Your task to perform on an android device: Search for coffee table on Crate & Barrel Image 0: 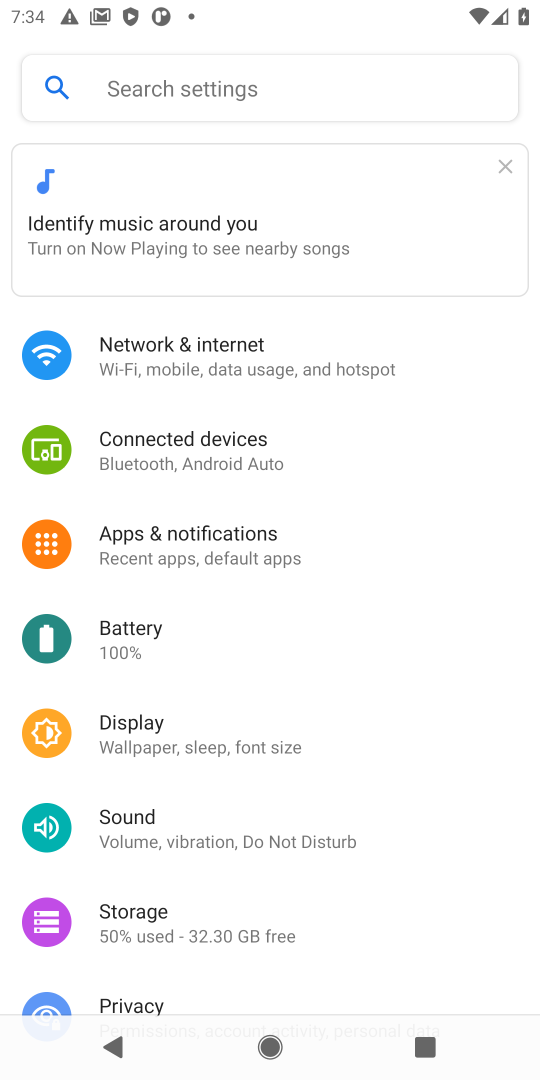
Step 0: press home button
Your task to perform on an android device: Search for coffee table on Crate & Barrel Image 1: 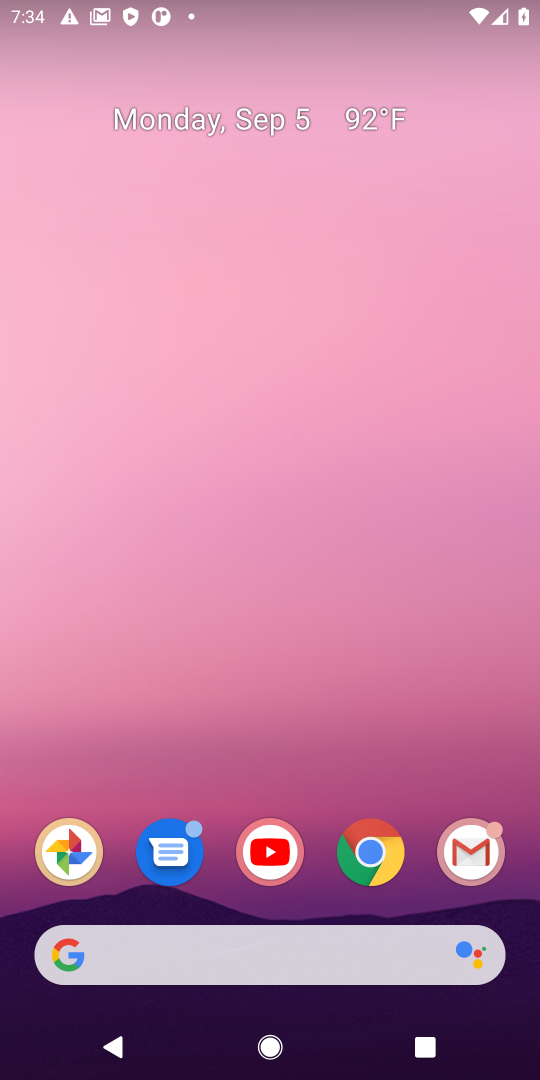
Step 1: click (364, 836)
Your task to perform on an android device: Search for coffee table on Crate & Barrel Image 2: 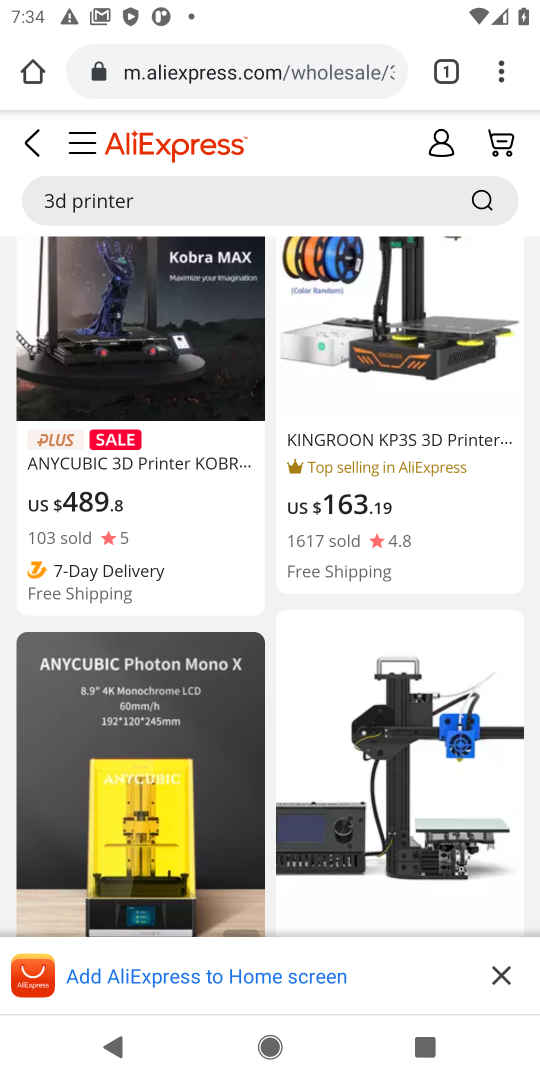
Step 2: click (339, 74)
Your task to perform on an android device: Search for coffee table on Crate & Barrel Image 3: 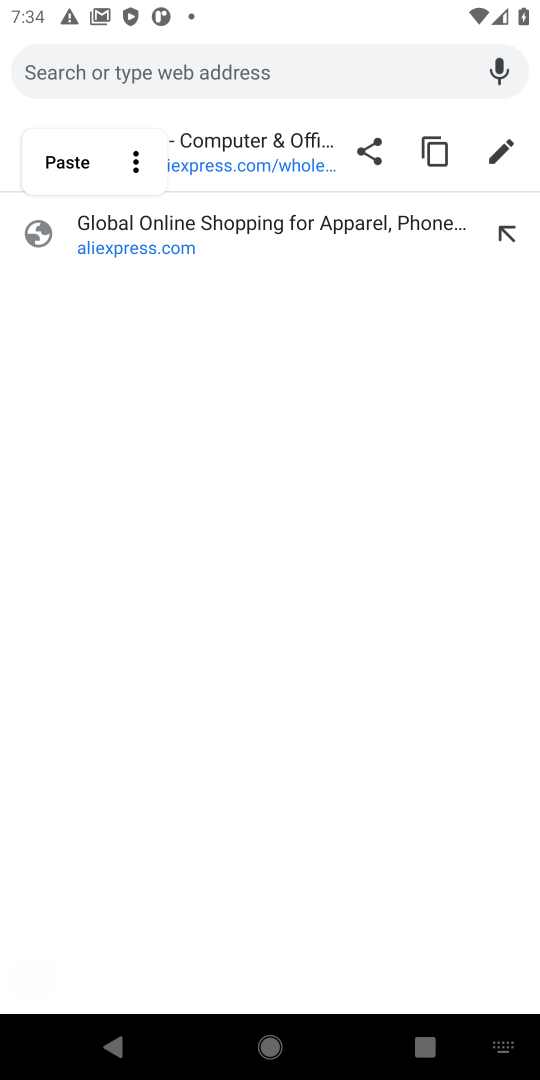
Step 3: type "crate & barrel"
Your task to perform on an android device: Search for coffee table on Crate & Barrel Image 4: 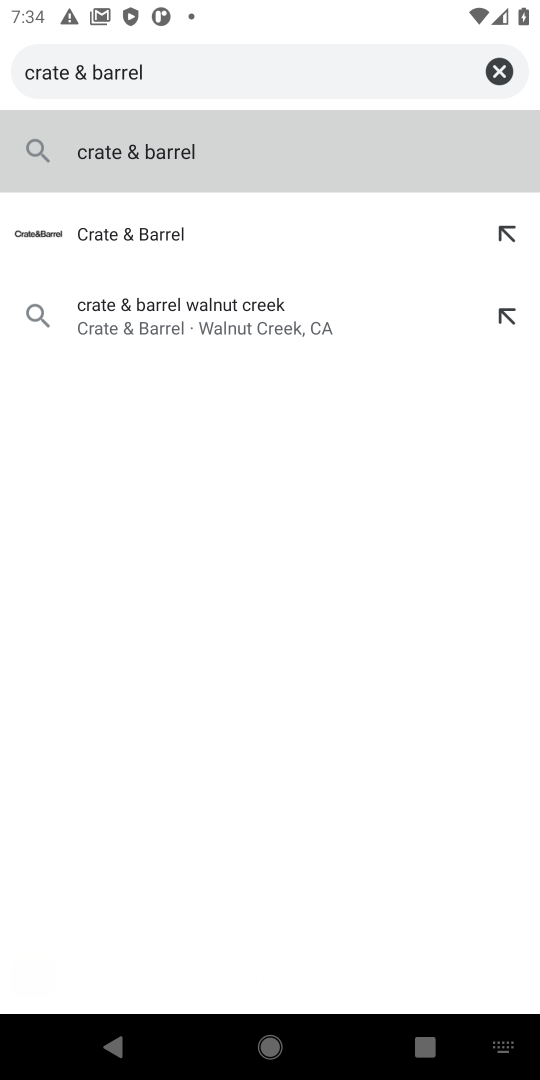
Step 4: press enter
Your task to perform on an android device: Search for coffee table on Crate & Barrel Image 5: 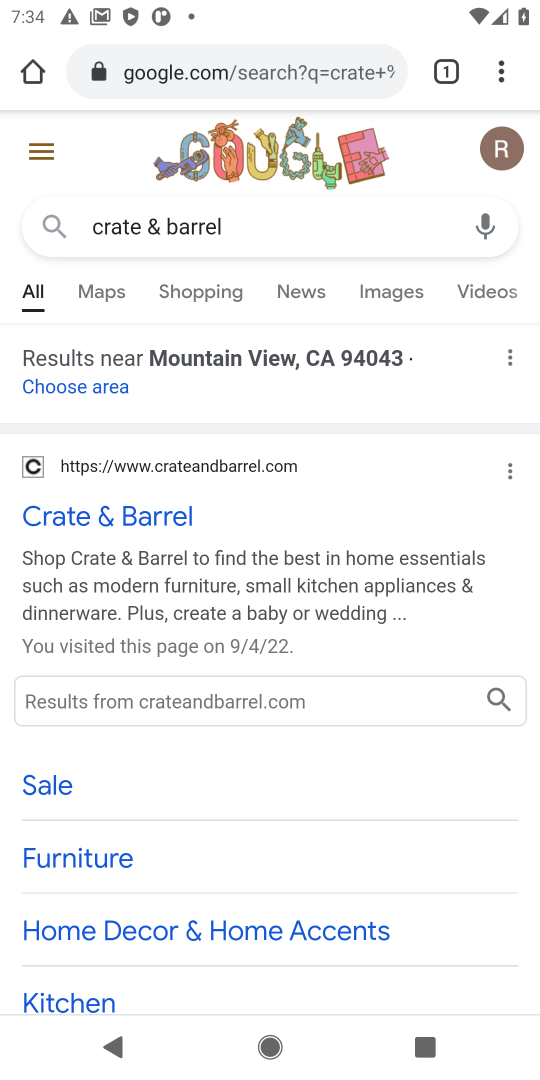
Step 5: click (120, 517)
Your task to perform on an android device: Search for coffee table on Crate & Barrel Image 6: 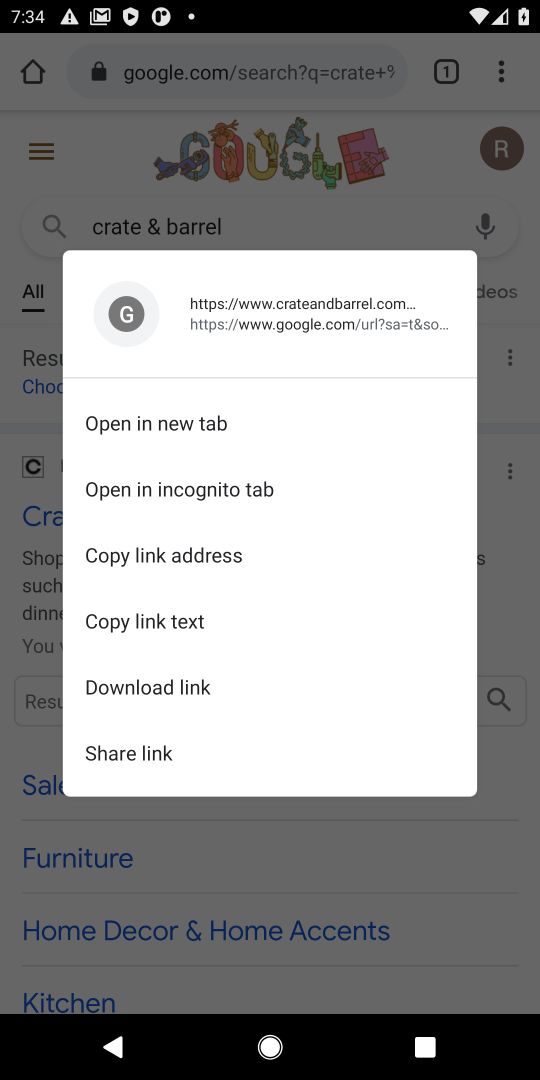
Step 6: click (528, 543)
Your task to perform on an android device: Search for coffee table on Crate & Barrel Image 7: 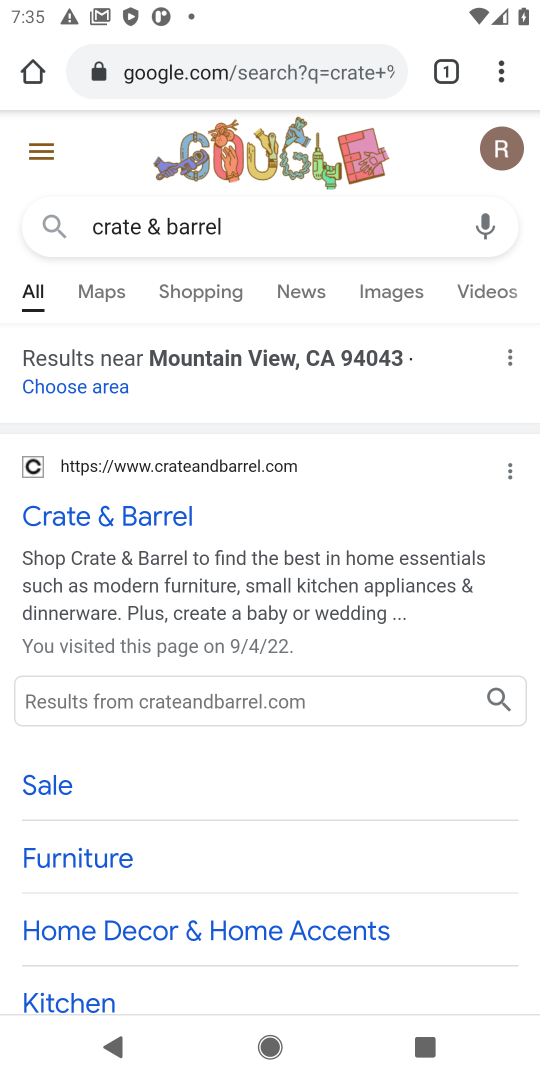
Step 7: click (83, 529)
Your task to perform on an android device: Search for coffee table on Crate & Barrel Image 8: 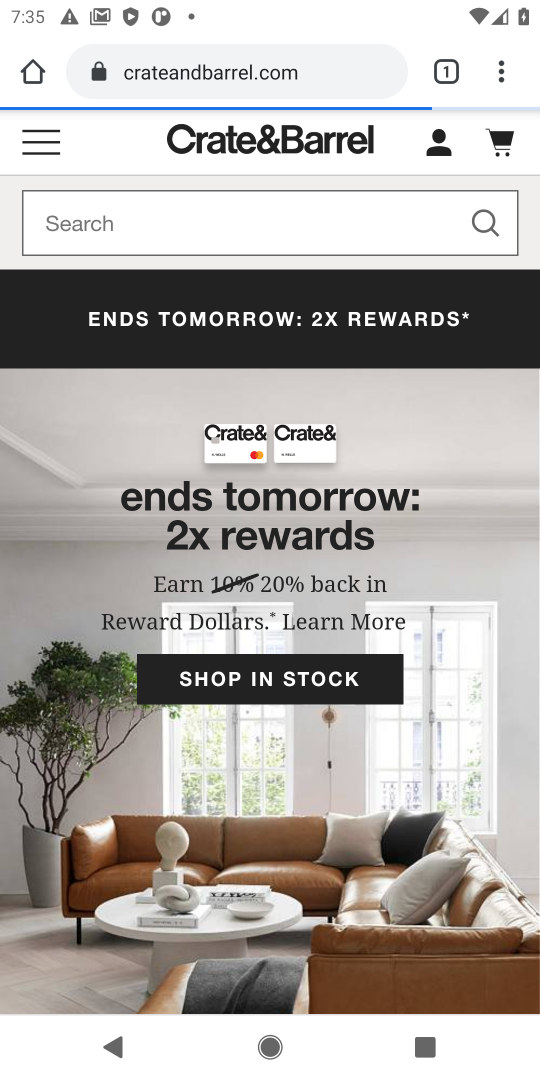
Step 8: click (275, 214)
Your task to perform on an android device: Search for coffee table on Crate & Barrel Image 9: 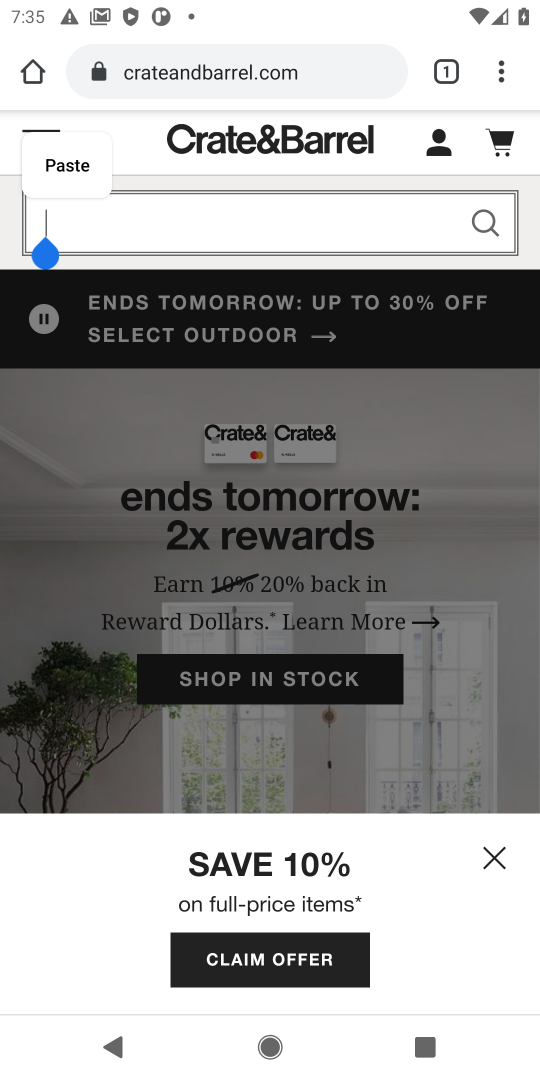
Step 9: type "coffee table"
Your task to perform on an android device: Search for coffee table on Crate & Barrel Image 10: 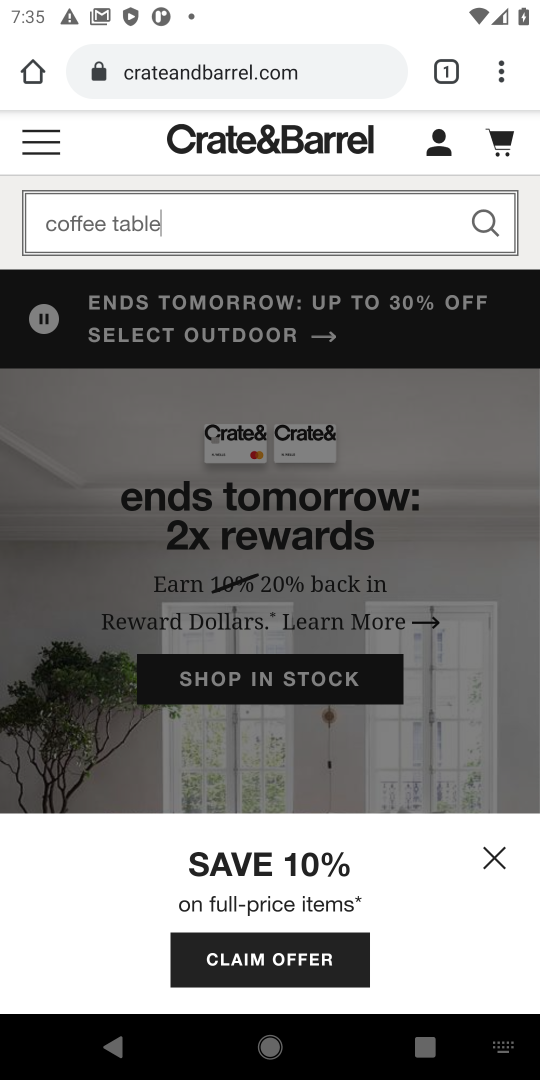
Step 10: type ""
Your task to perform on an android device: Search for coffee table on Crate & Barrel Image 11: 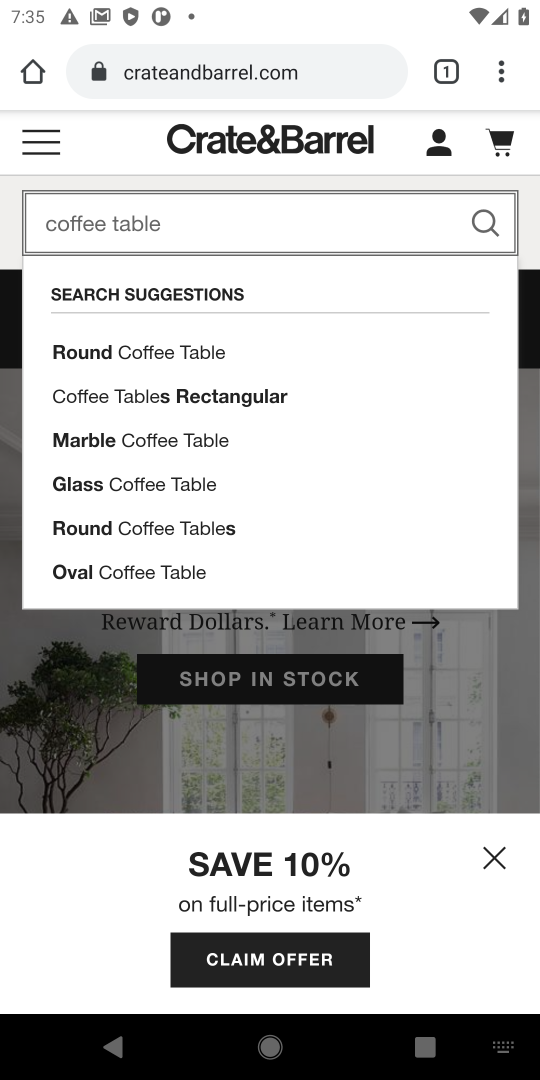
Step 11: press enter
Your task to perform on an android device: Search for coffee table on Crate & Barrel Image 12: 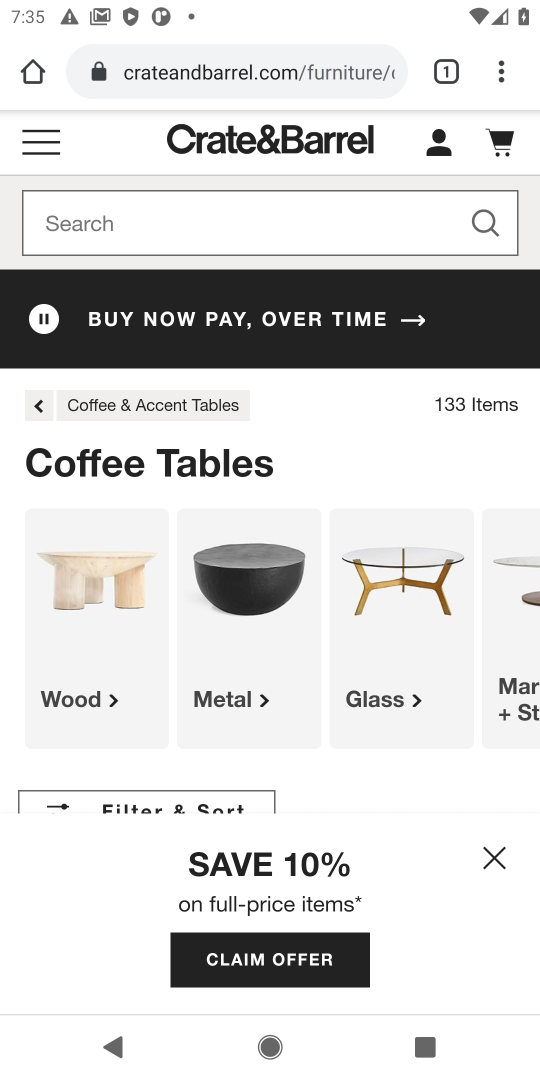
Step 12: drag from (248, 697) to (257, 540)
Your task to perform on an android device: Search for coffee table on Crate & Barrel Image 13: 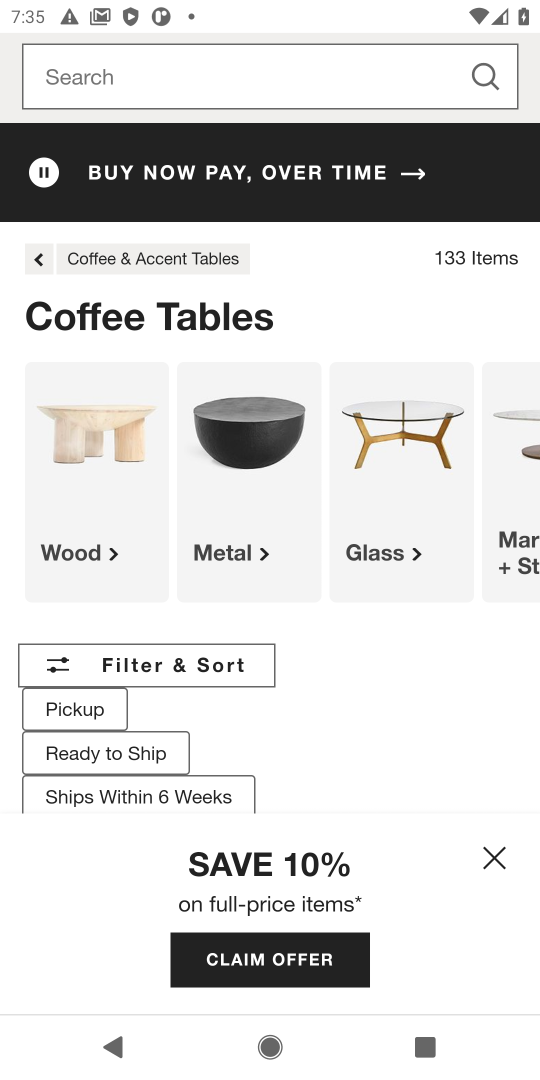
Step 13: click (502, 852)
Your task to perform on an android device: Search for coffee table on Crate & Barrel Image 14: 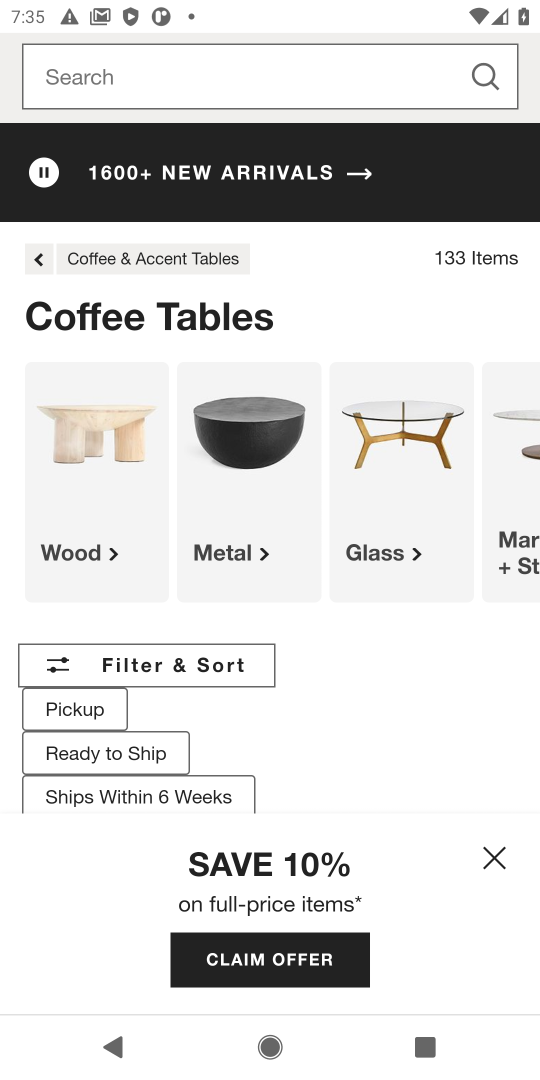
Step 14: click (493, 858)
Your task to perform on an android device: Search for coffee table on Crate & Barrel Image 15: 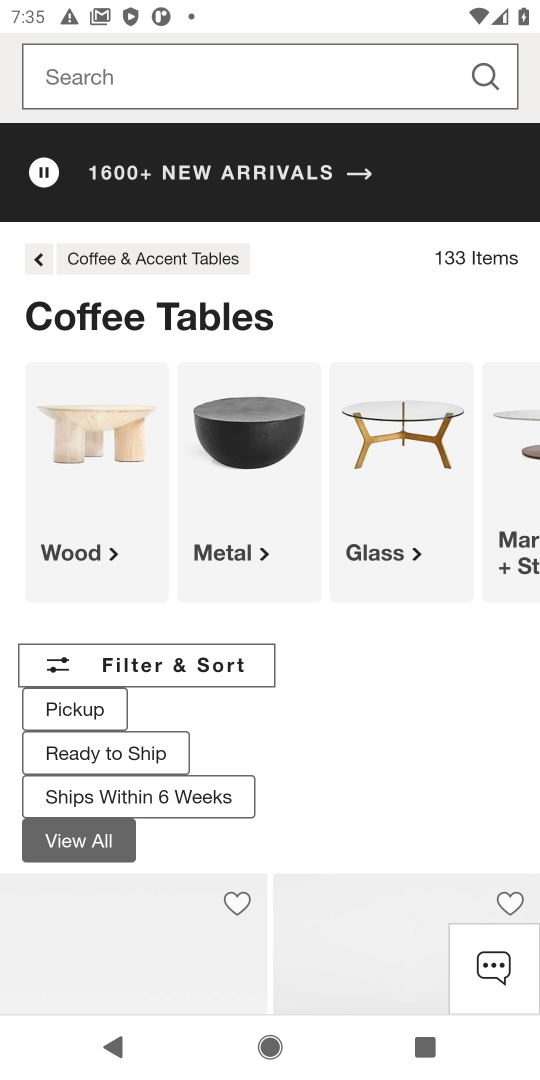
Step 15: task complete